Your task to perform on an android device: check out phone information Image 0: 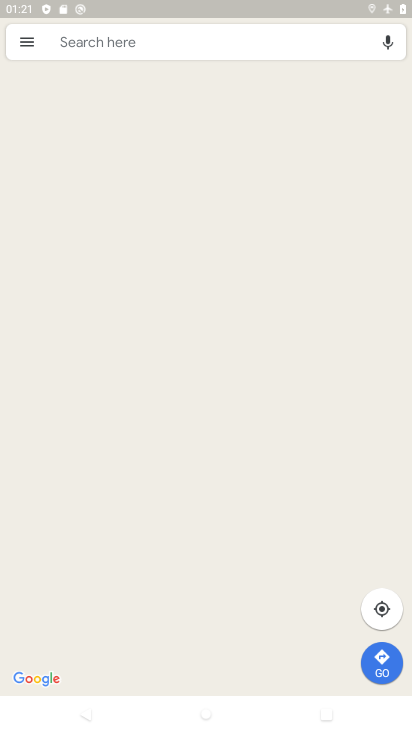
Step 0: press home button
Your task to perform on an android device: check out phone information Image 1: 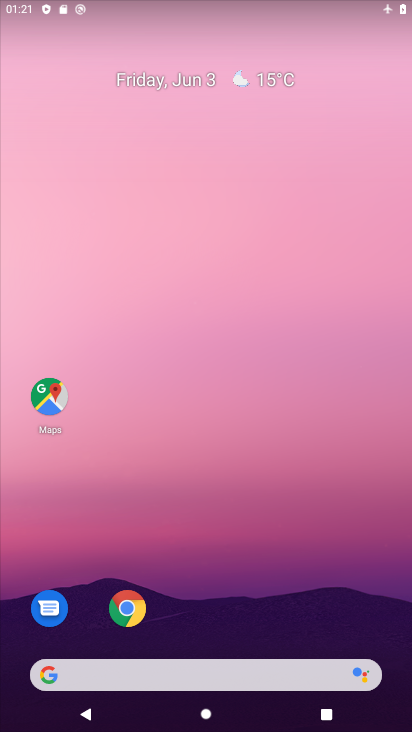
Step 1: drag from (249, 588) to (283, 179)
Your task to perform on an android device: check out phone information Image 2: 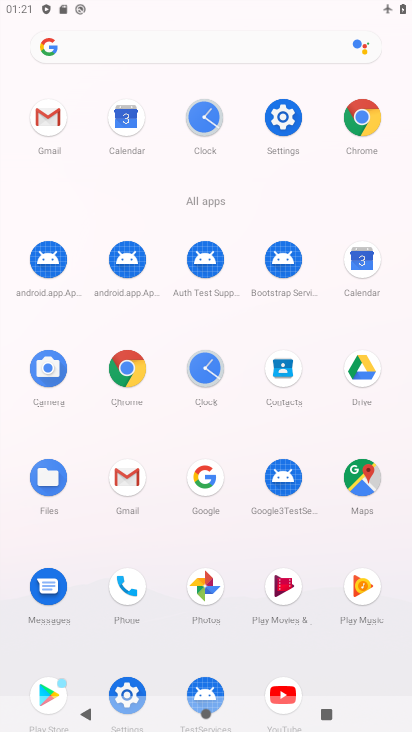
Step 2: click (128, 581)
Your task to perform on an android device: check out phone information Image 3: 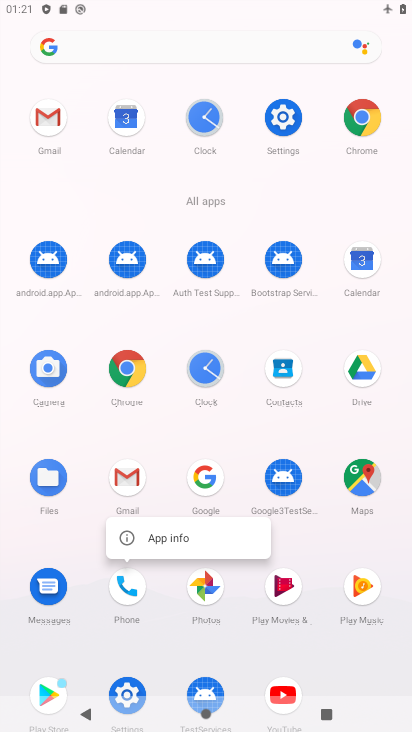
Step 3: click (164, 536)
Your task to perform on an android device: check out phone information Image 4: 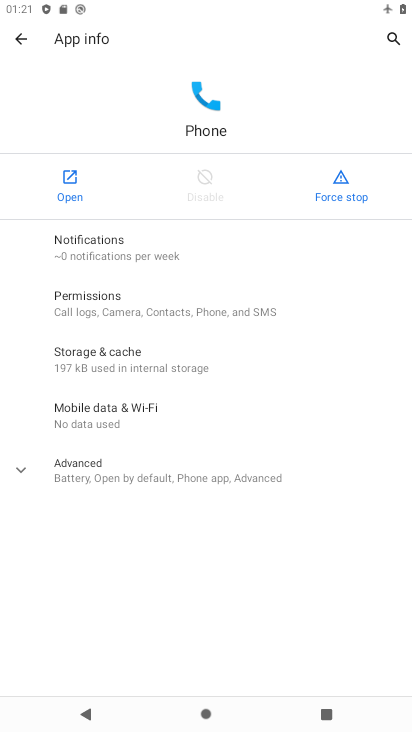
Step 4: task complete